Your task to perform on an android device: Check the news Image 0: 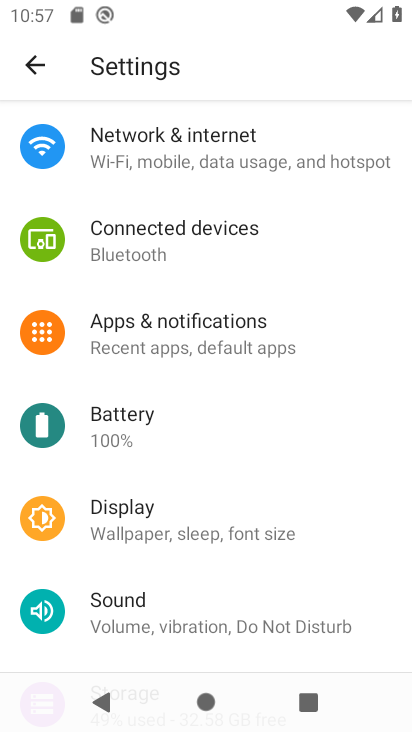
Step 0: press home button
Your task to perform on an android device: Check the news Image 1: 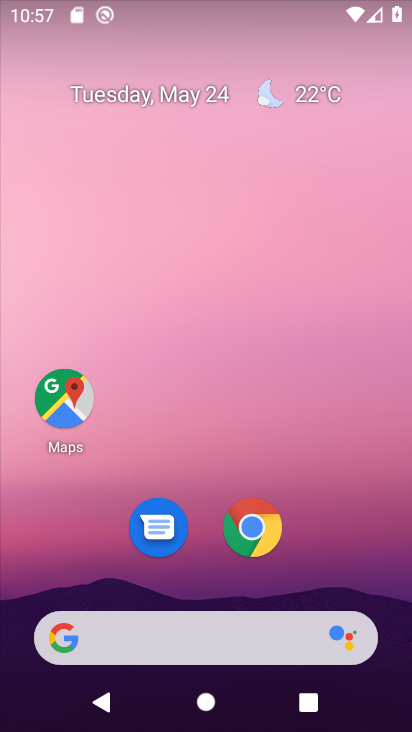
Step 1: click (69, 644)
Your task to perform on an android device: Check the news Image 2: 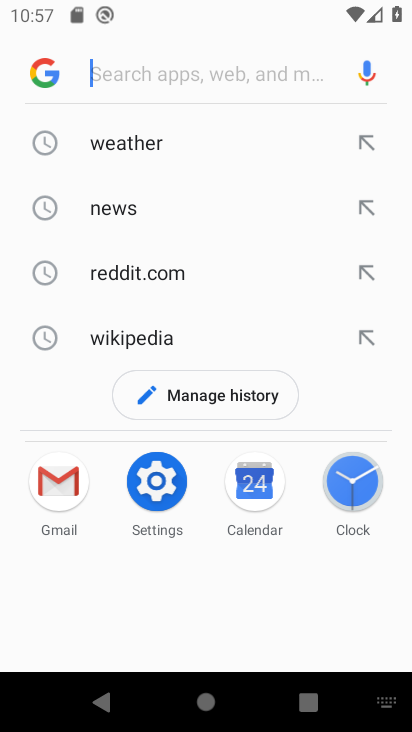
Step 2: click (131, 207)
Your task to perform on an android device: Check the news Image 3: 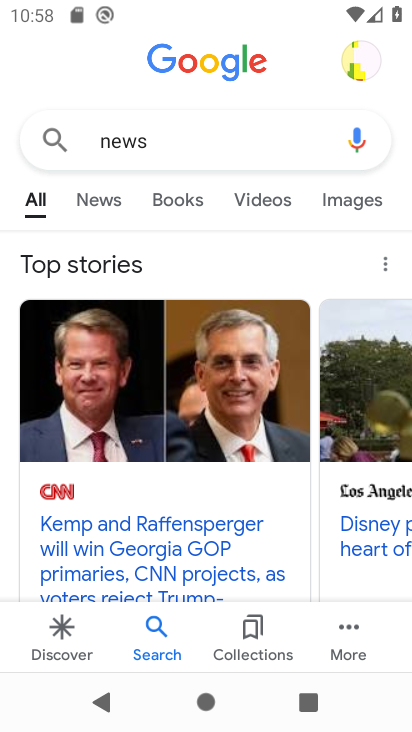
Step 3: click (112, 197)
Your task to perform on an android device: Check the news Image 4: 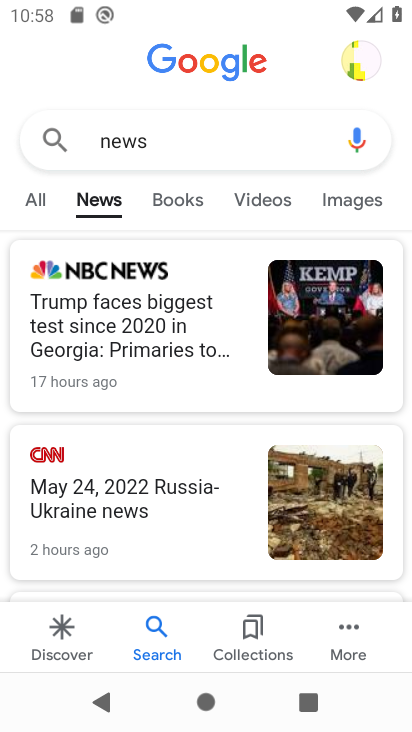
Step 4: task complete